Your task to perform on an android device: delete the emails in spam in the gmail app Image 0: 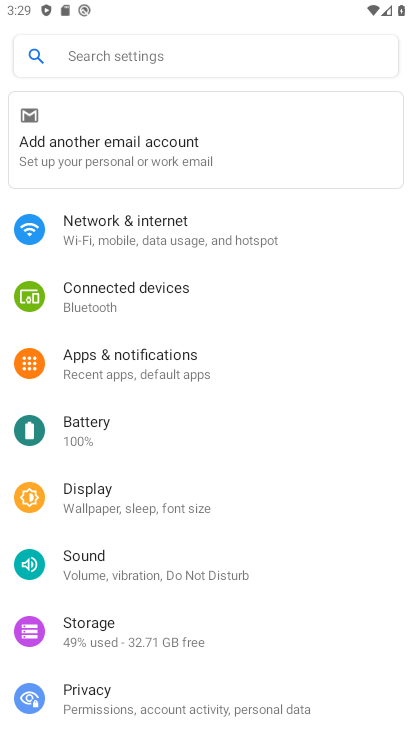
Step 0: press home button
Your task to perform on an android device: delete the emails in spam in the gmail app Image 1: 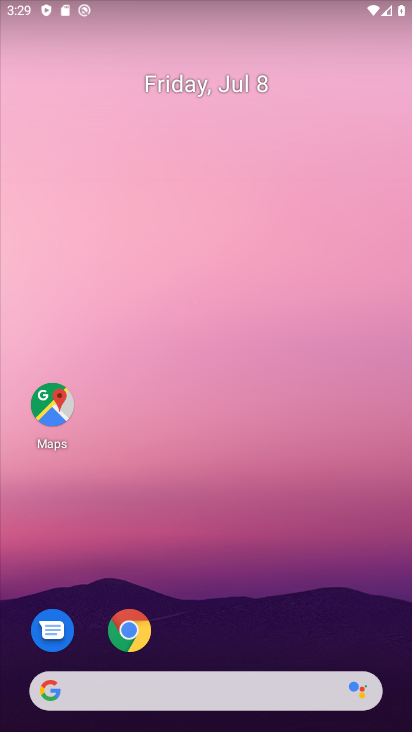
Step 1: drag from (313, 612) to (311, 8)
Your task to perform on an android device: delete the emails in spam in the gmail app Image 2: 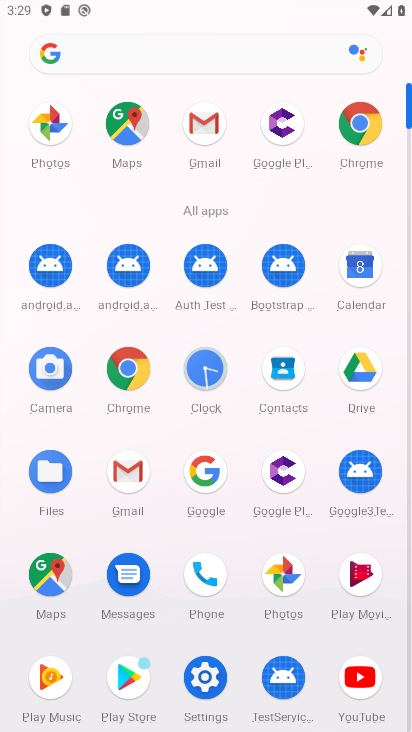
Step 2: click (199, 127)
Your task to perform on an android device: delete the emails in spam in the gmail app Image 3: 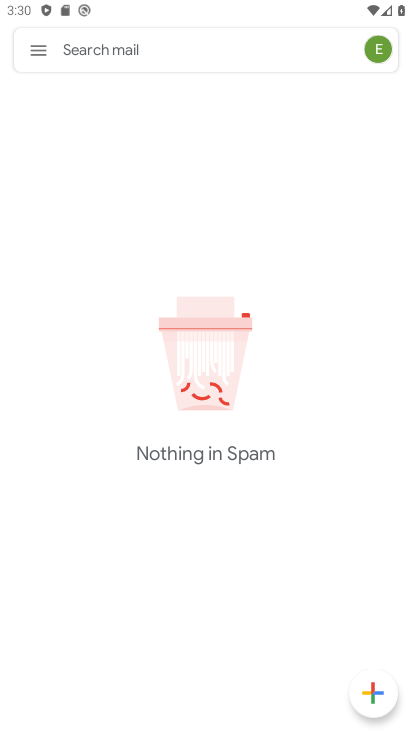
Step 3: click (41, 53)
Your task to perform on an android device: delete the emails in spam in the gmail app Image 4: 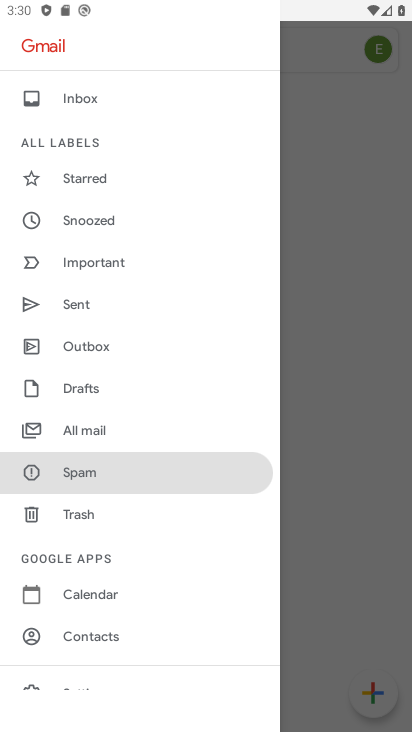
Step 4: click (64, 482)
Your task to perform on an android device: delete the emails in spam in the gmail app Image 5: 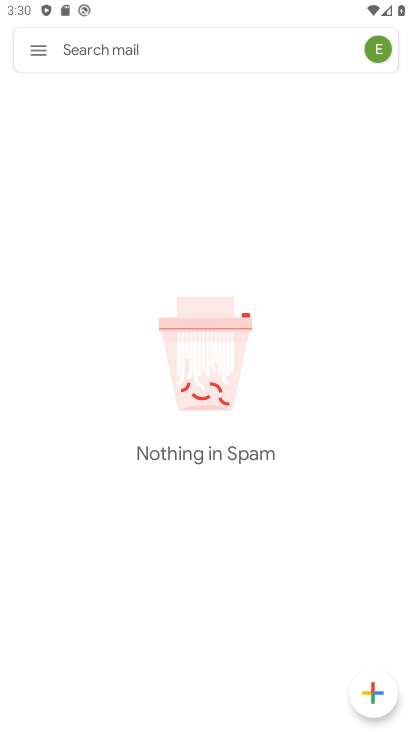
Step 5: task complete